Your task to perform on an android device: turn off picture-in-picture Image 0: 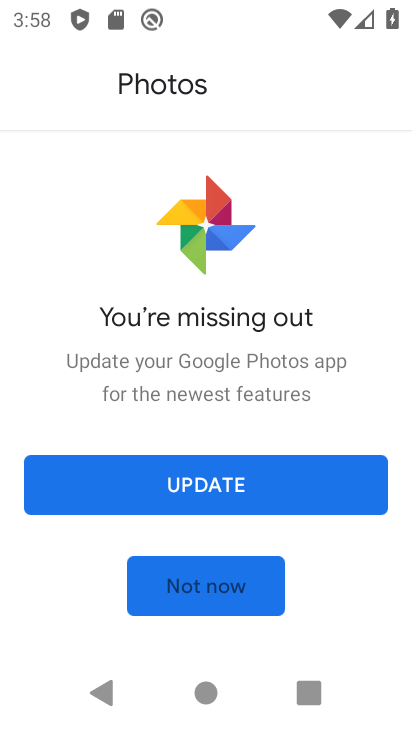
Step 0: press home button
Your task to perform on an android device: turn off picture-in-picture Image 1: 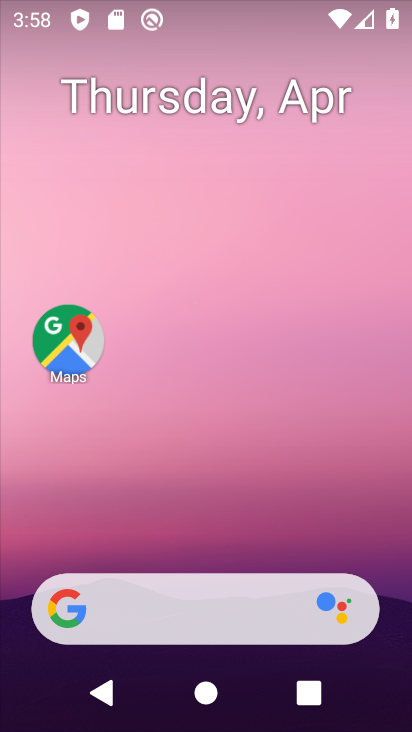
Step 1: drag from (218, 695) to (218, 104)
Your task to perform on an android device: turn off picture-in-picture Image 2: 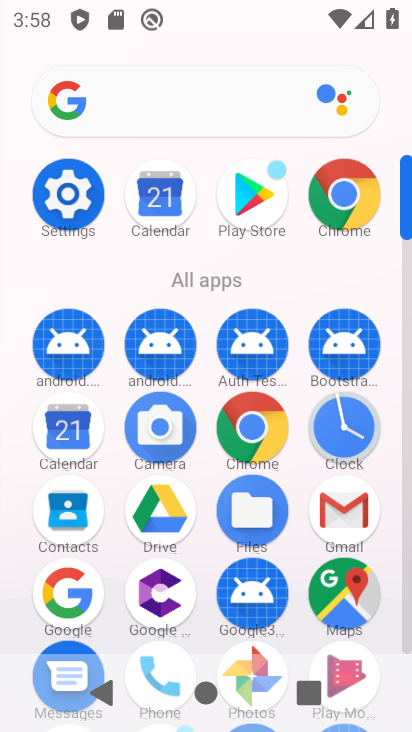
Step 2: click (72, 198)
Your task to perform on an android device: turn off picture-in-picture Image 3: 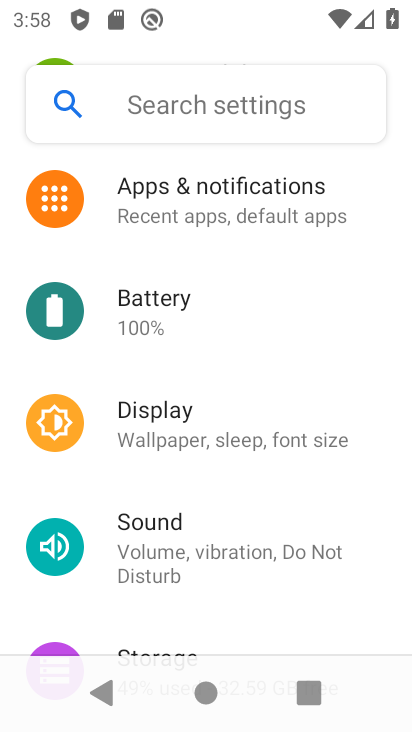
Step 3: drag from (199, 609) to (209, 310)
Your task to perform on an android device: turn off picture-in-picture Image 4: 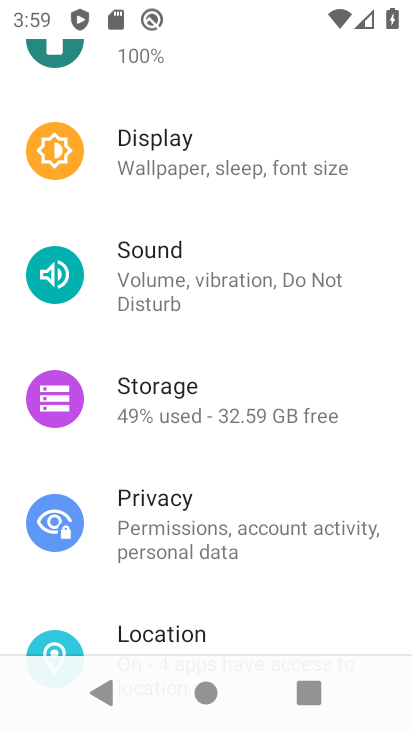
Step 4: drag from (244, 121) to (264, 526)
Your task to perform on an android device: turn off picture-in-picture Image 5: 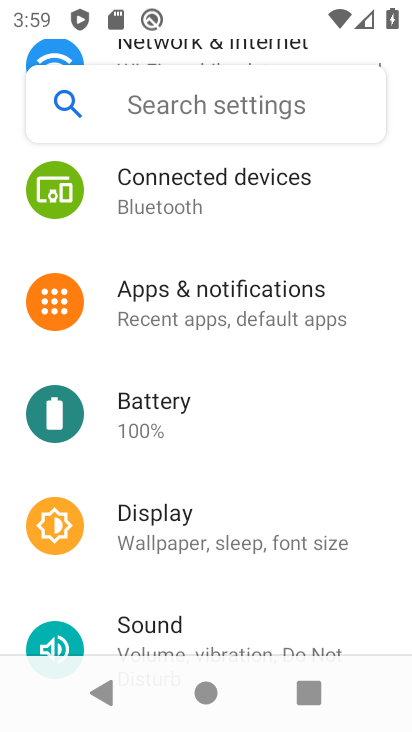
Step 5: click (224, 304)
Your task to perform on an android device: turn off picture-in-picture Image 6: 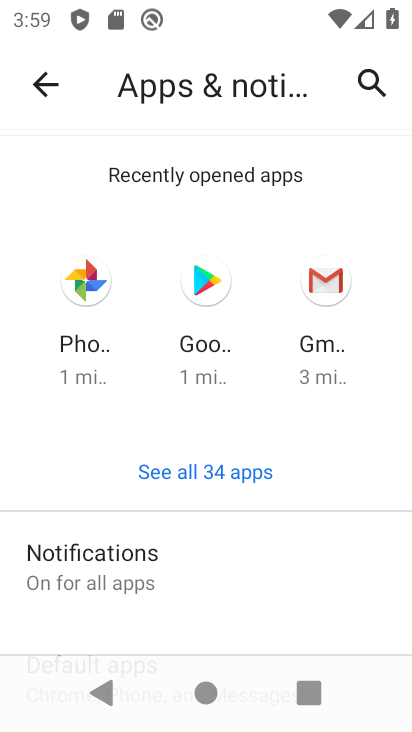
Step 6: drag from (212, 640) to (219, 252)
Your task to perform on an android device: turn off picture-in-picture Image 7: 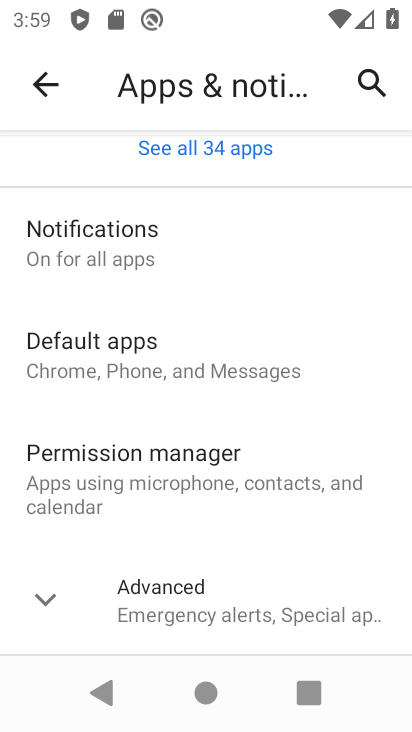
Step 7: click (179, 592)
Your task to perform on an android device: turn off picture-in-picture Image 8: 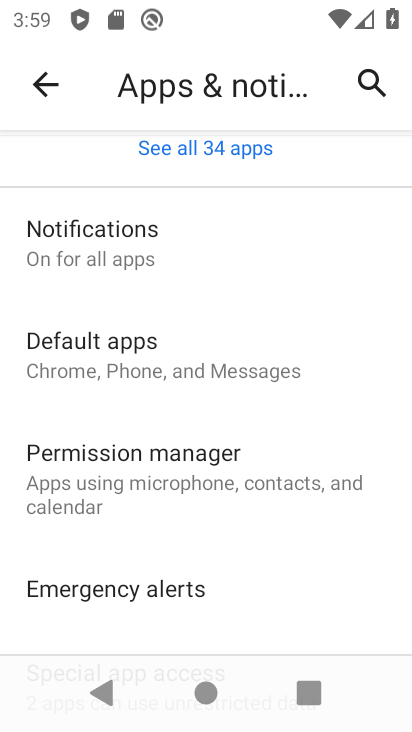
Step 8: drag from (236, 573) to (259, 274)
Your task to perform on an android device: turn off picture-in-picture Image 9: 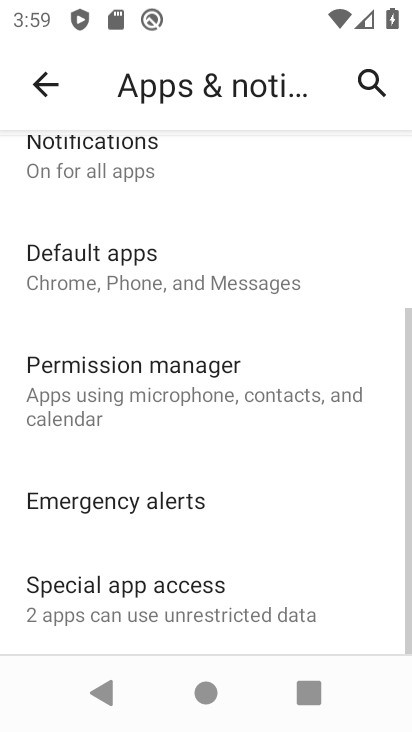
Step 9: click (166, 604)
Your task to perform on an android device: turn off picture-in-picture Image 10: 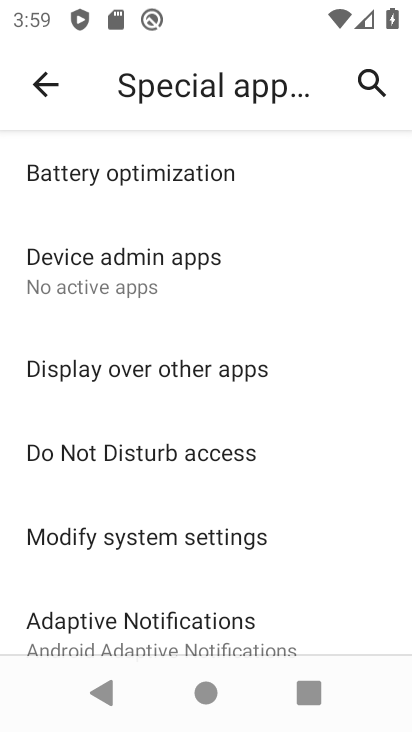
Step 10: drag from (208, 591) to (247, 235)
Your task to perform on an android device: turn off picture-in-picture Image 11: 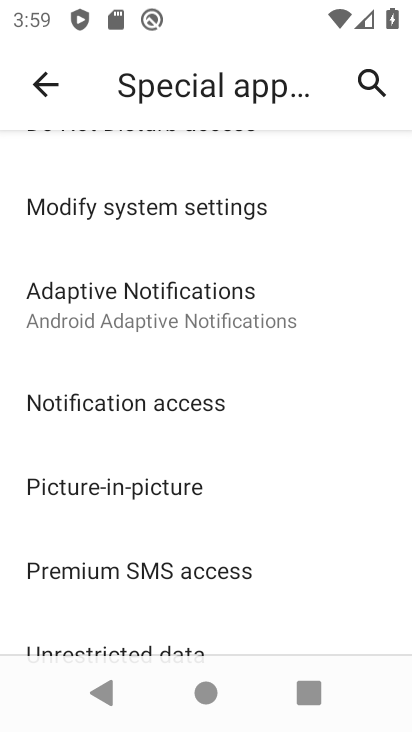
Step 11: click (115, 487)
Your task to perform on an android device: turn off picture-in-picture Image 12: 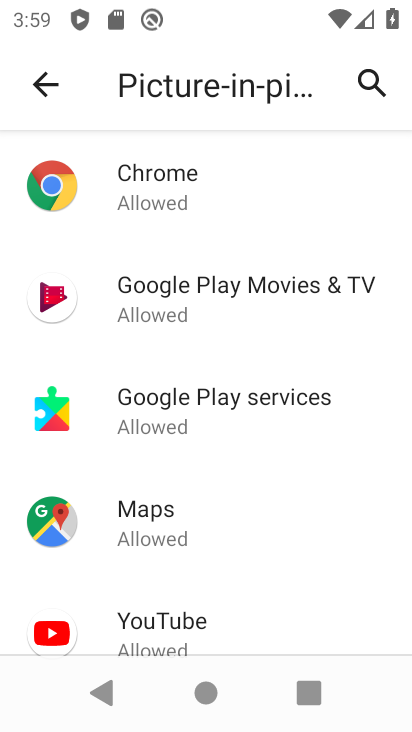
Step 12: click (166, 629)
Your task to perform on an android device: turn off picture-in-picture Image 13: 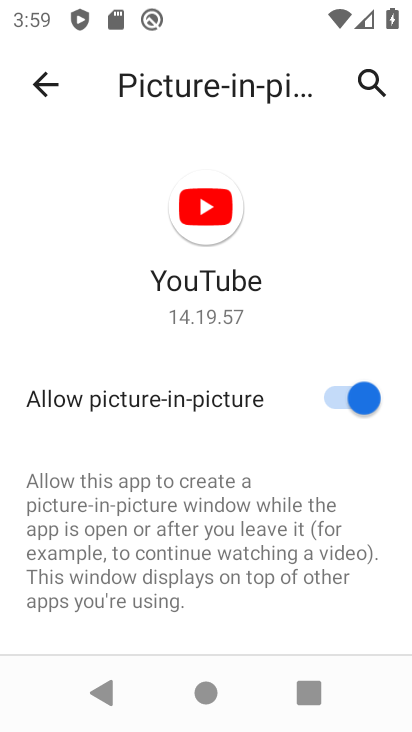
Step 13: click (330, 402)
Your task to perform on an android device: turn off picture-in-picture Image 14: 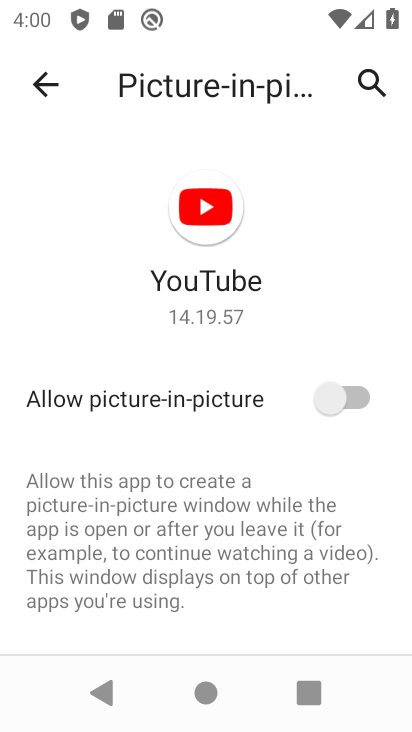
Step 14: task complete